Your task to perform on an android device: Check the news Image 0: 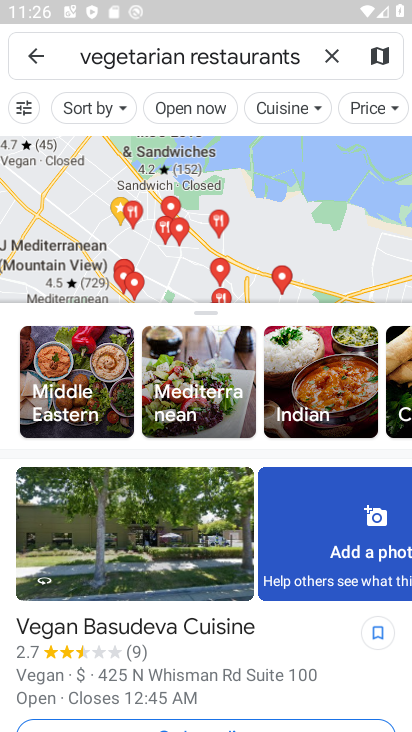
Step 0: press home button
Your task to perform on an android device: Check the news Image 1: 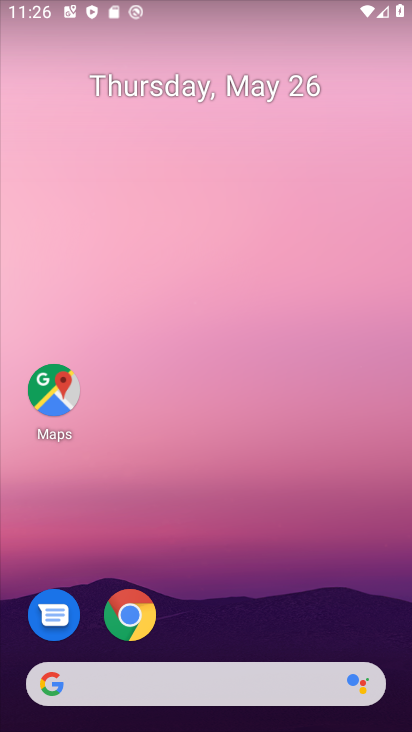
Step 1: drag from (231, 671) to (382, 110)
Your task to perform on an android device: Check the news Image 2: 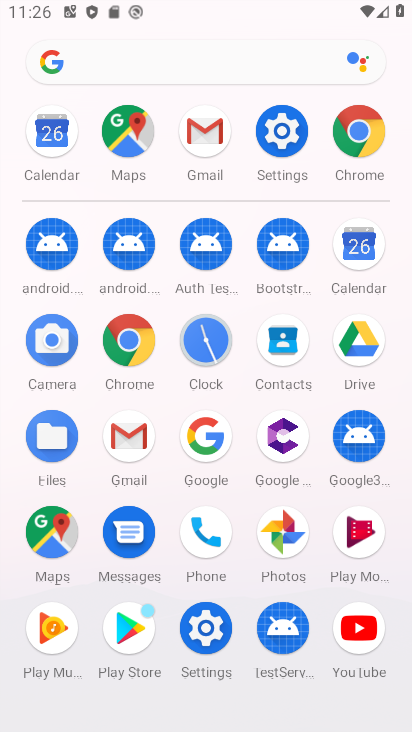
Step 2: click (112, 350)
Your task to perform on an android device: Check the news Image 3: 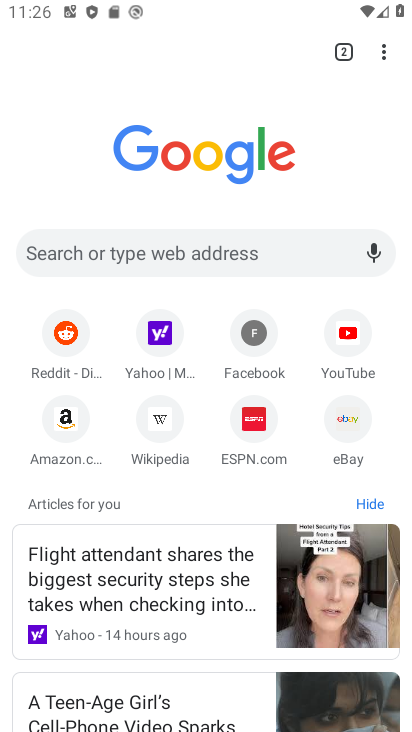
Step 3: click (262, 260)
Your task to perform on an android device: Check the news Image 4: 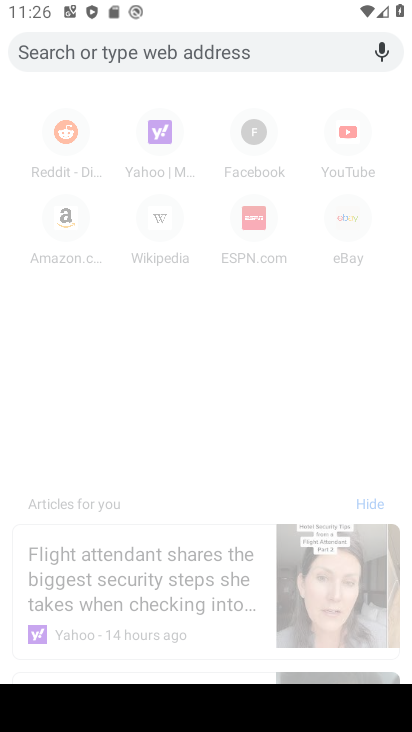
Step 4: type "news"
Your task to perform on an android device: Check the news Image 5: 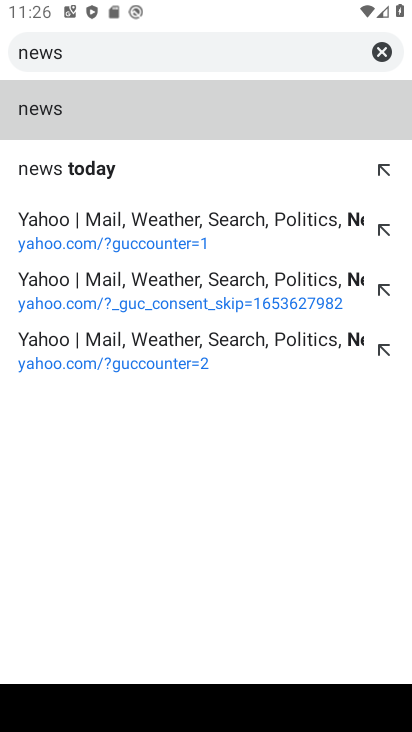
Step 5: click (88, 149)
Your task to perform on an android device: Check the news Image 6: 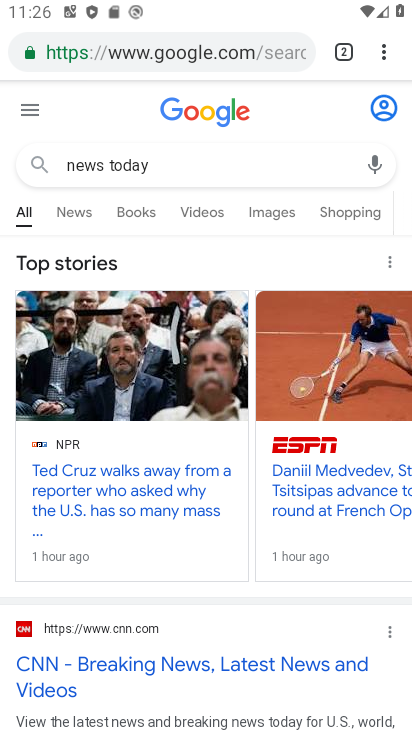
Step 6: task complete